Your task to perform on an android device: delete the emails in spam in the gmail app Image 0: 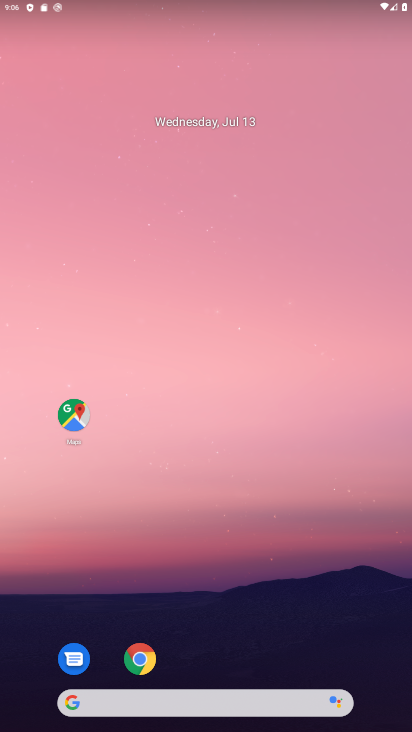
Step 0: drag from (386, 694) to (313, 121)
Your task to perform on an android device: delete the emails in spam in the gmail app Image 1: 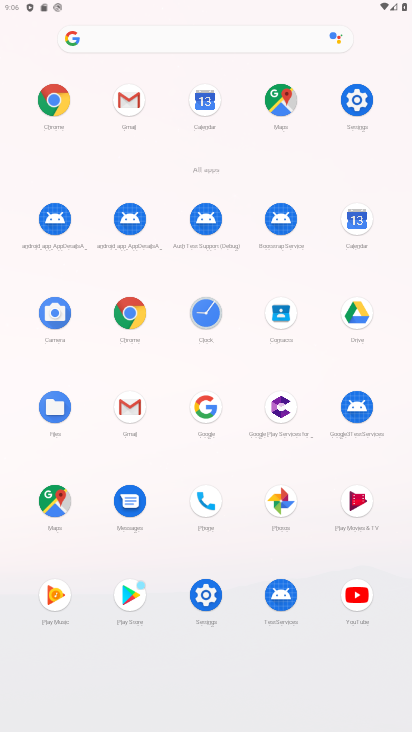
Step 1: click (131, 407)
Your task to perform on an android device: delete the emails in spam in the gmail app Image 2: 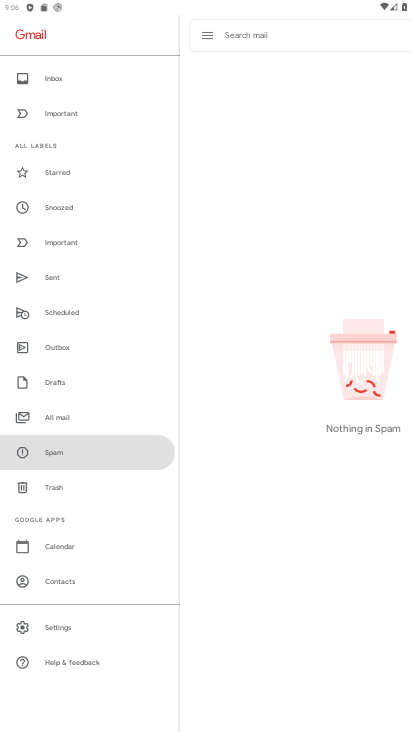
Step 2: click (57, 450)
Your task to perform on an android device: delete the emails in spam in the gmail app Image 3: 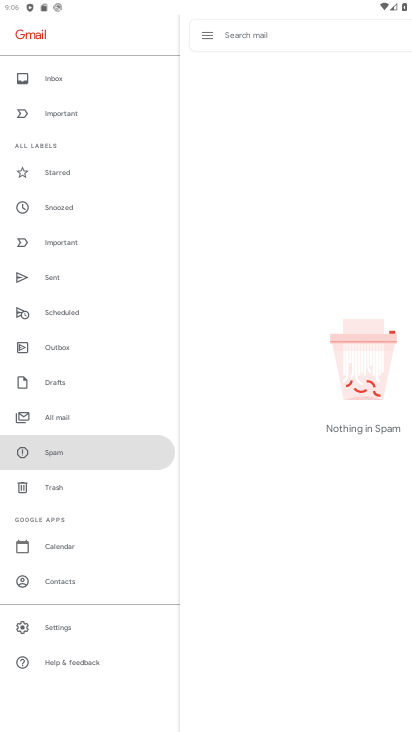
Step 3: task complete